Your task to perform on an android device: Look up the best selling patio furniture on Home Depot Image 0: 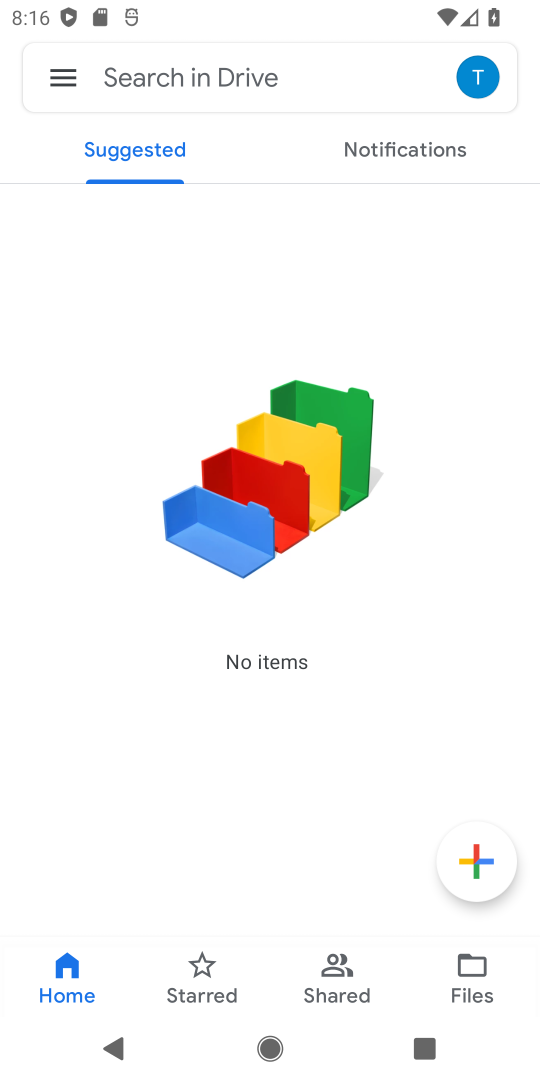
Step 0: press home button
Your task to perform on an android device: Look up the best selling patio furniture on Home Depot Image 1: 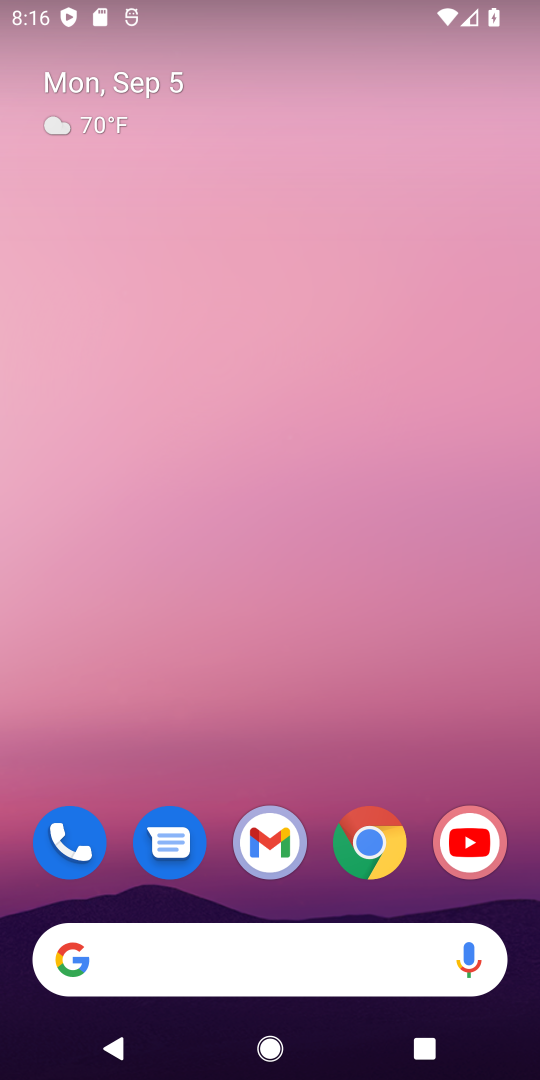
Step 1: click (370, 847)
Your task to perform on an android device: Look up the best selling patio furniture on Home Depot Image 2: 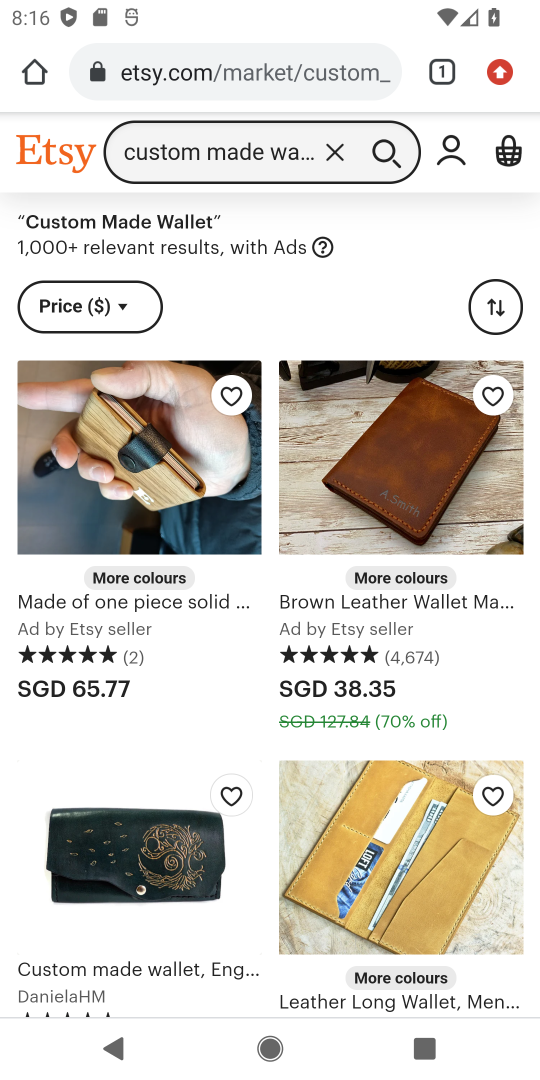
Step 2: click (326, 81)
Your task to perform on an android device: Look up the best selling patio furniture on Home Depot Image 3: 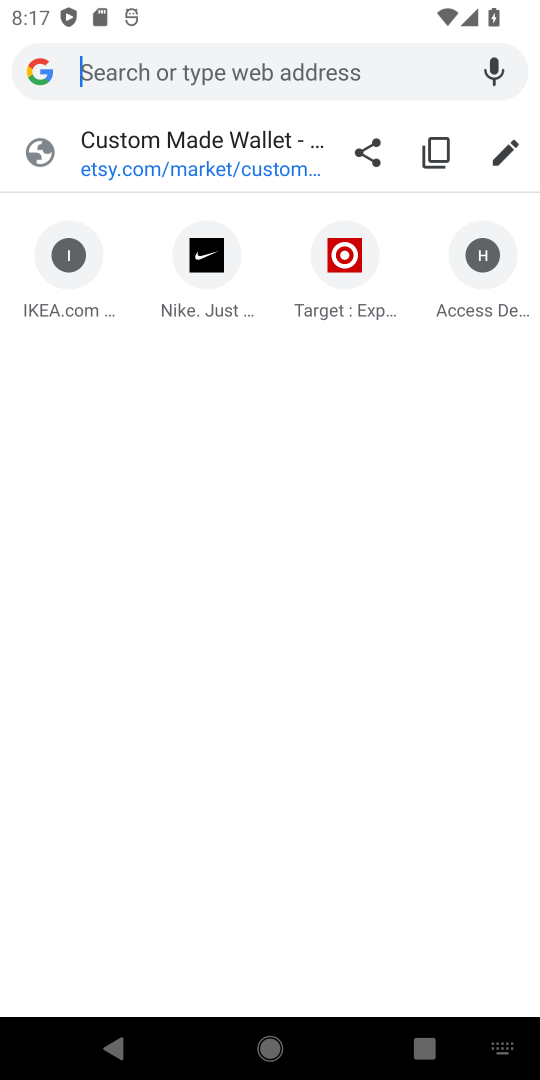
Step 3: type "Home Depot"
Your task to perform on an android device: Look up the best selling patio furniture on Home Depot Image 4: 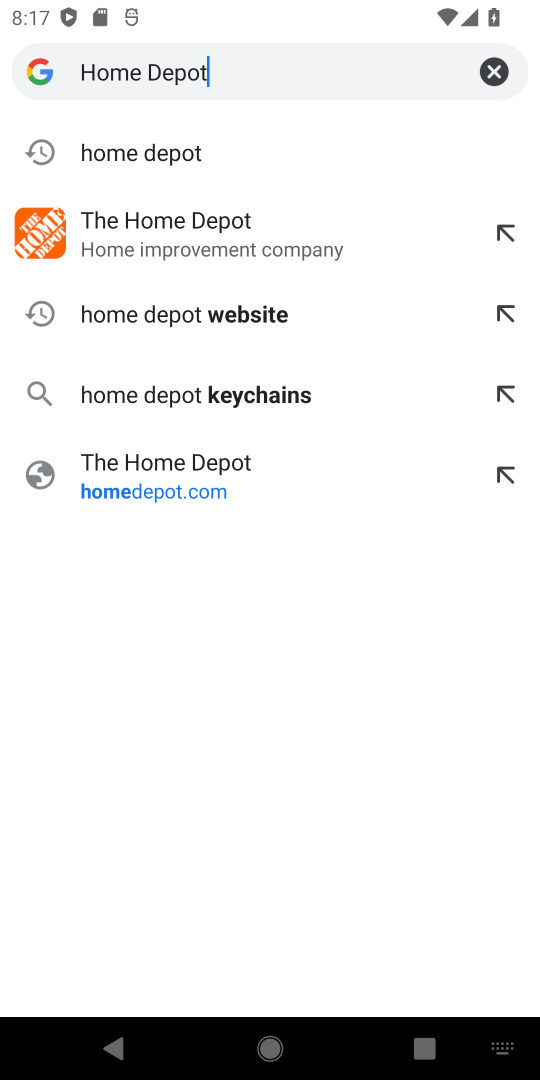
Step 4: click (194, 159)
Your task to perform on an android device: Look up the best selling patio furniture on Home Depot Image 5: 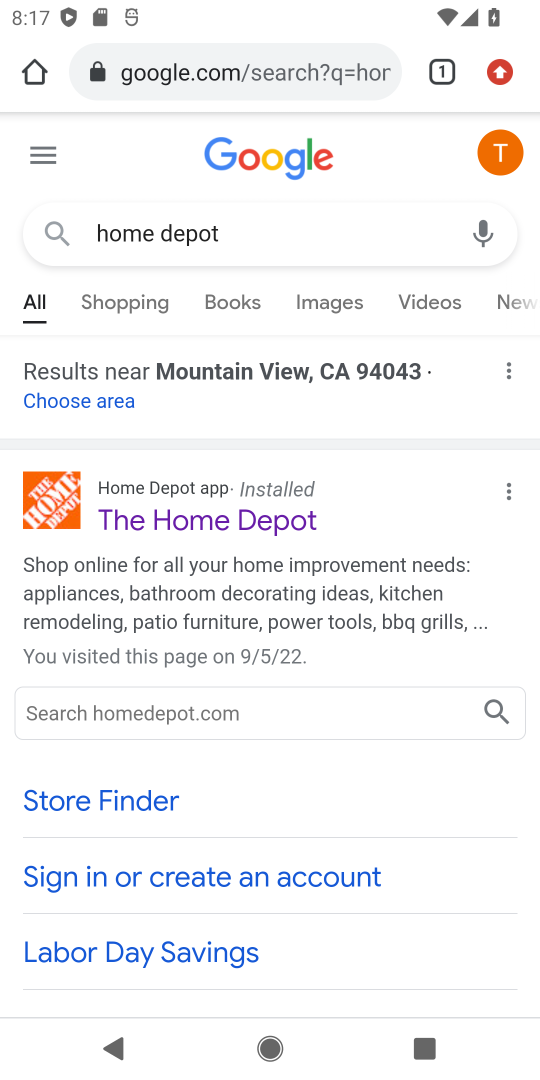
Step 5: drag from (200, 800) to (345, 614)
Your task to perform on an android device: Look up the best selling patio furniture on Home Depot Image 6: 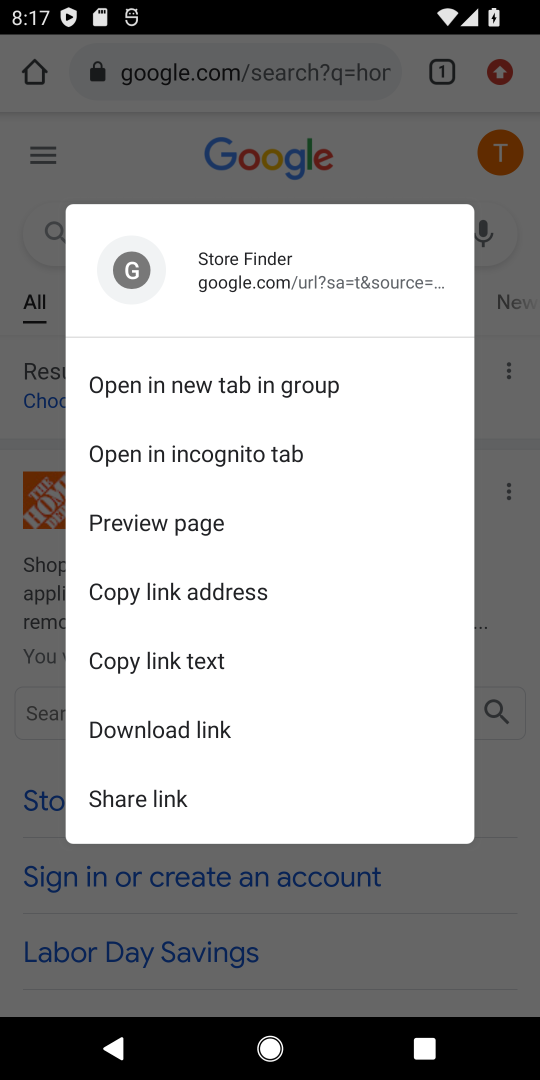
Step 6: click (519, 220)
Your task to perform on an android device: Look up the best selling patio furniture on Home Depot Image 7: 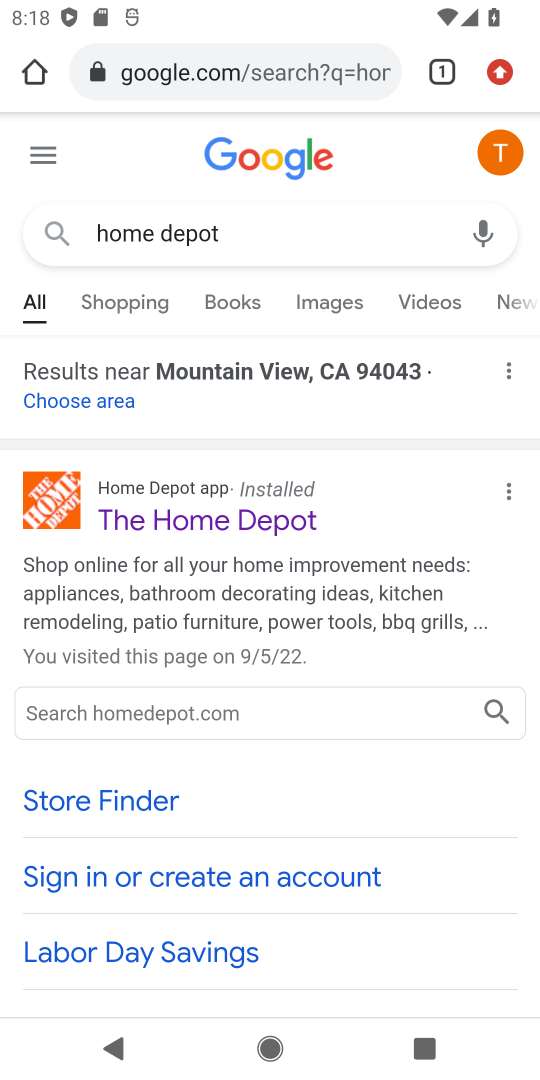
Step 7: drag from (262, 834) to (352, 648)
Your task to perform on an android device: Look up the best selling patio furniture on Home Depot Image 8: 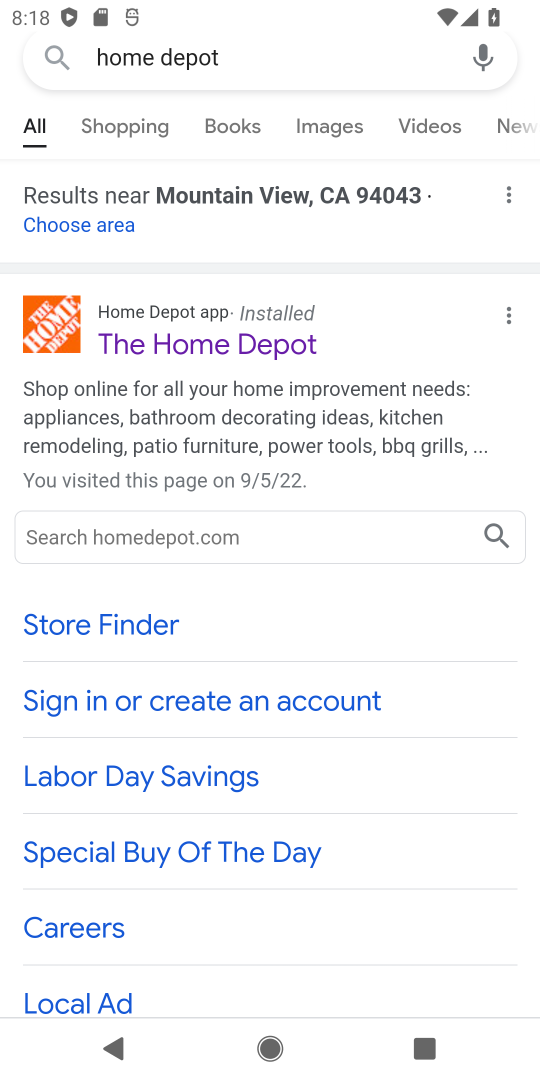
Step 8: drag from (262, 917) to (372, 721)
Your task to perform on an android device: Look up the best selling patio furniture on Home Depot Image 9: 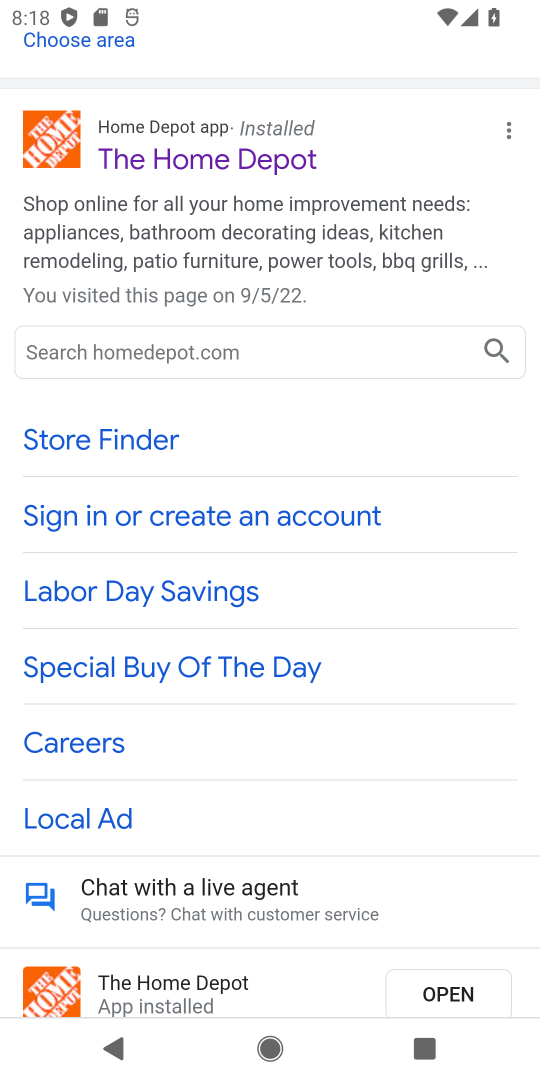
Step 9: drag from (201, 844) to (348, 643)
Your task to perform on an android device: Look up the best selling patio furniture on Home Depot Image 10: 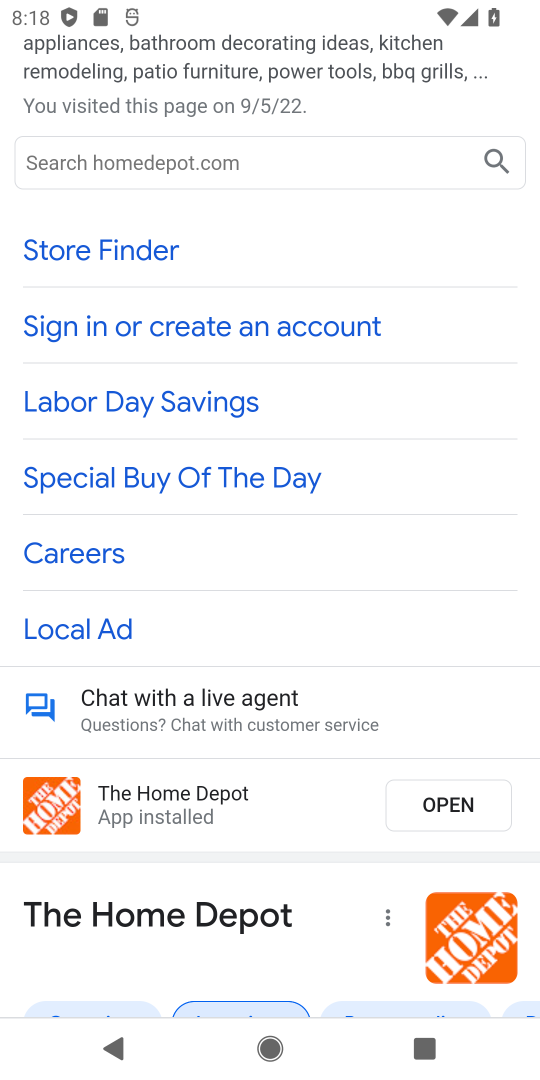
Step 10: drag from (220, 929) to (367, 689)
Your task to perform on an android device: Look up the best selling patio furniture on Home Depot Image 11: 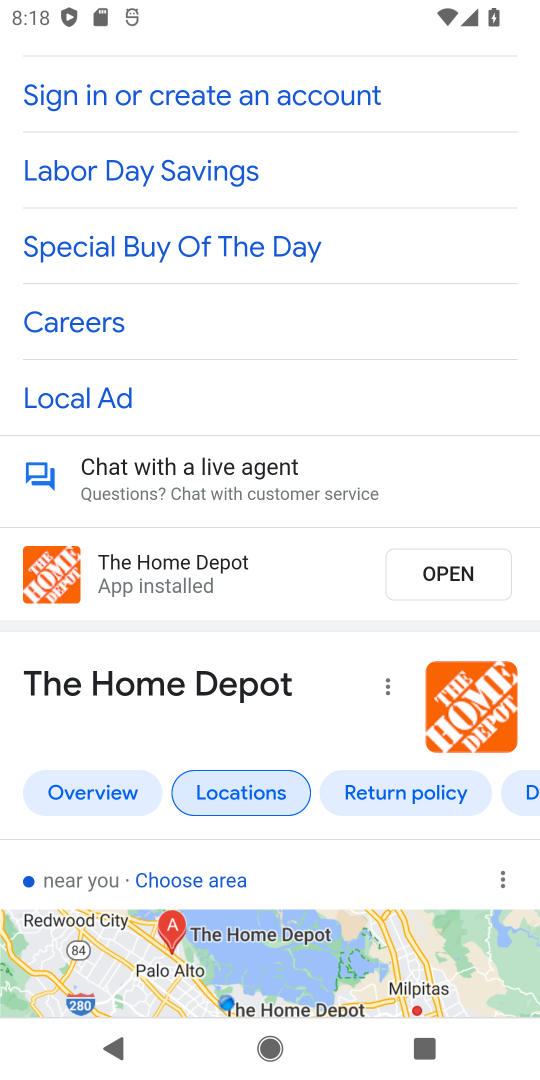
Step 11: drag from (301, 860) to (462, 611)
Your task to perform on an android device: Look up the best selling patio furniture on Home Depot Image 12: 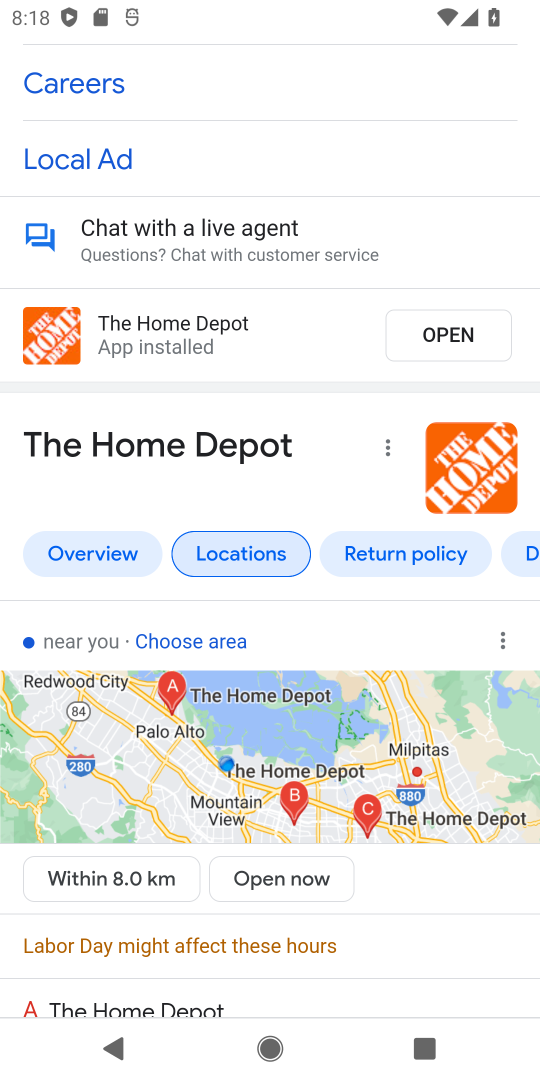
Step 12: drag from (364, 959) to (414, 720)
Your task to perform on an android device: Look up the best selling patio furniture on Home Depot Image 13: 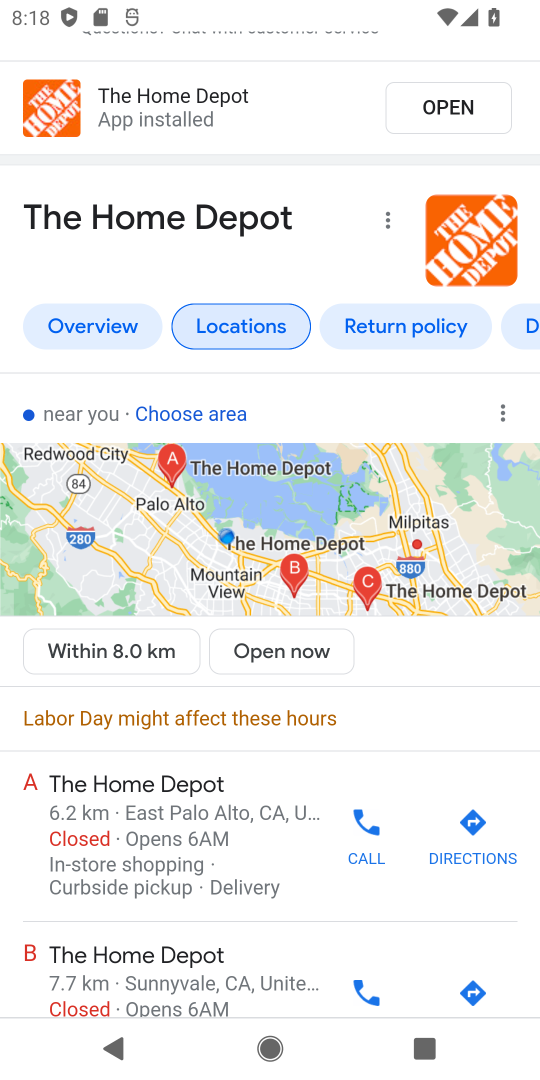
Step 13: drag from (300, 937) to (461, 702)
Your task to perform on an android device: Look up the best selling patio furniture on Home Depot Image 14: 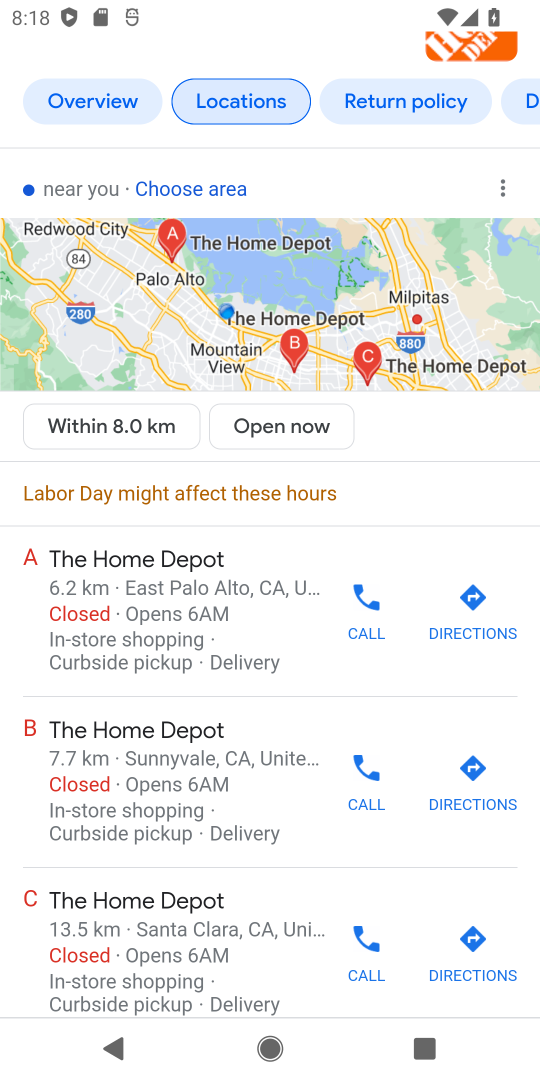
Step 14: drag from (329, 858) to (441, 691)
Your task to perform on an android device: Look up the best selling patio furniture on Home Depot Image 15: 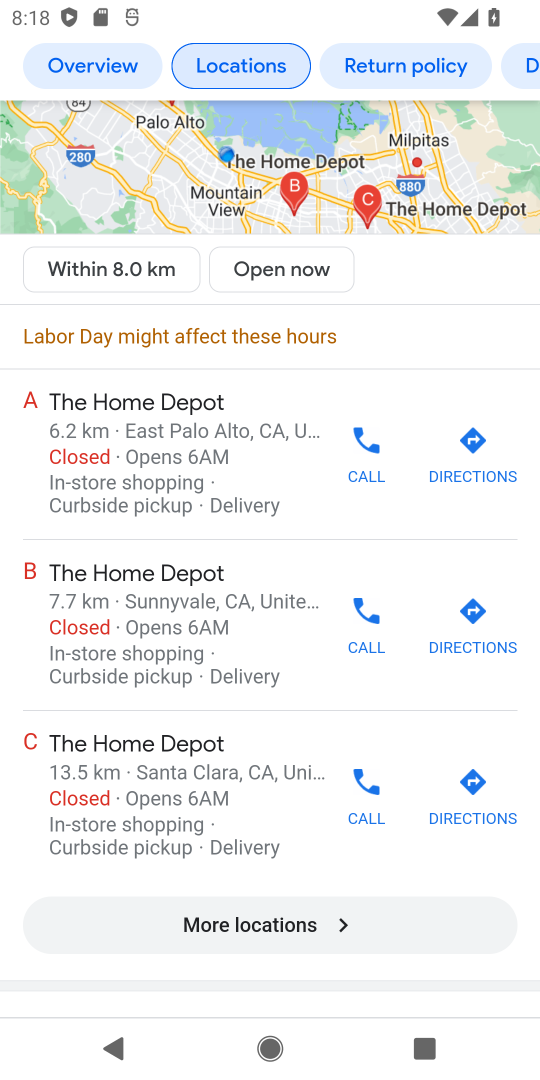
Step 15: drag from (303, 867) to (449, 581)
Your task to perform on an android device: Look up the best selling patio furniture on Home Depot Image 16: 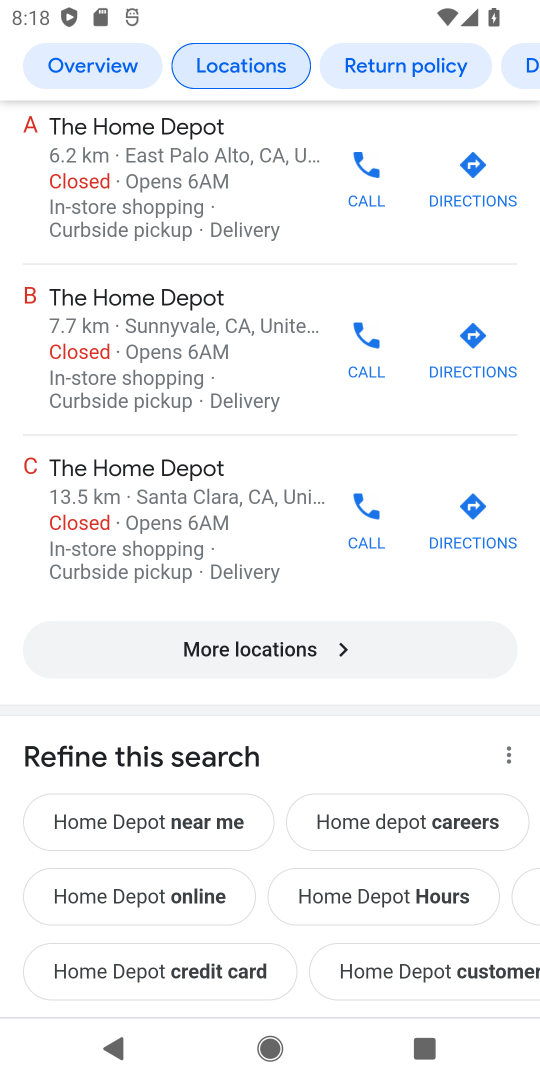
Step 16: drag from (228, 836) to (315, 678)
Your task to perform on an android device: Look up the best selling patio furniture on Home Depot Image 17: 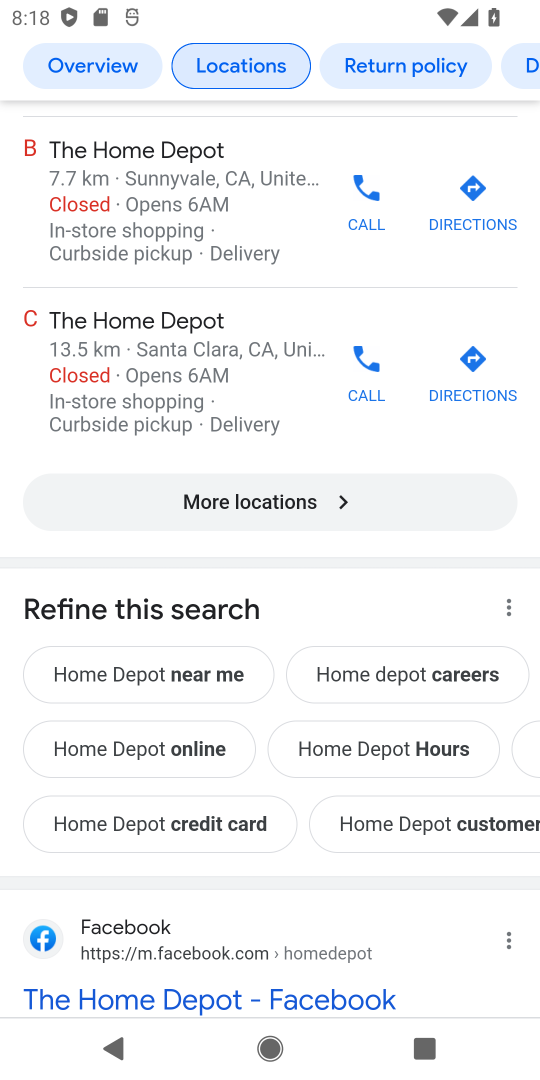
Step 17: drag from (229, 891) to (370, 612)
Your task to perform on an android device: Look up the best selling patio furniture on Home Depot Image 18: 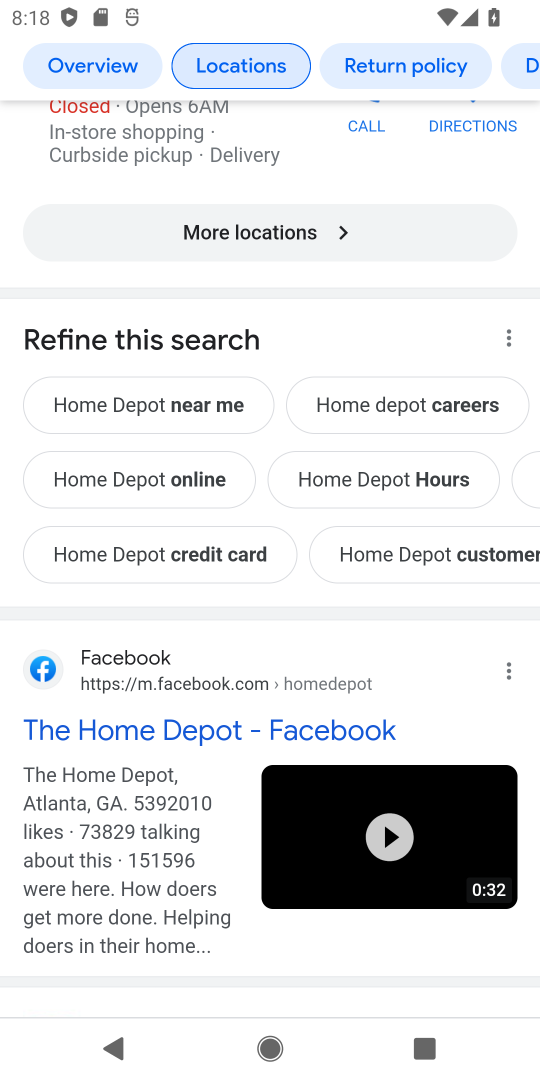
Step 18: drag from (297, 787) to (376, 644)
Your task to perform on an android device: Look up the best selling patio furniture on Home Depot Image 19: 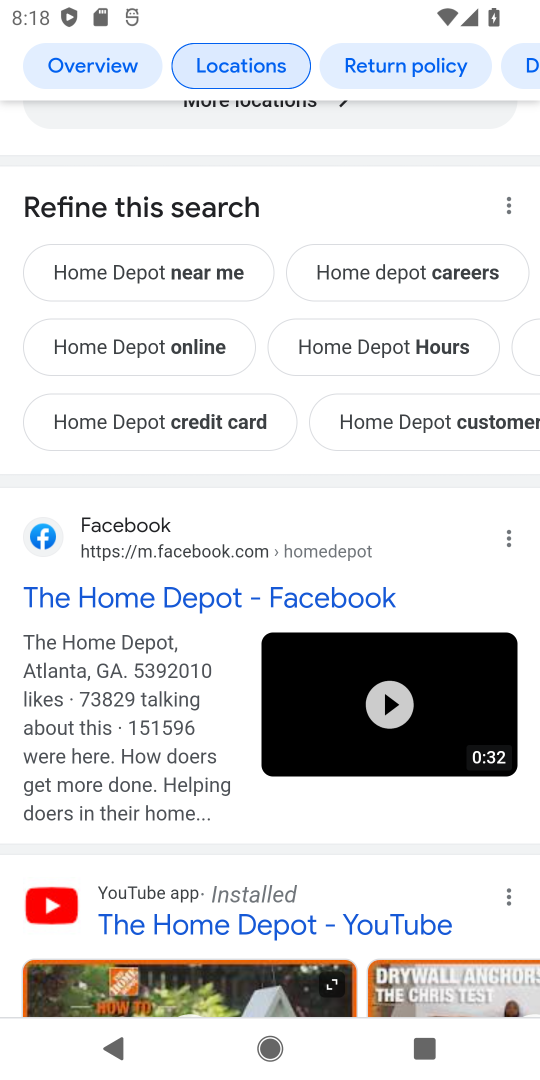
Step 19: drag from (308, 886) to (441, 690)
Your task to perform on an android device: Look up the best selling patio furniture on Home Depot Image 20: 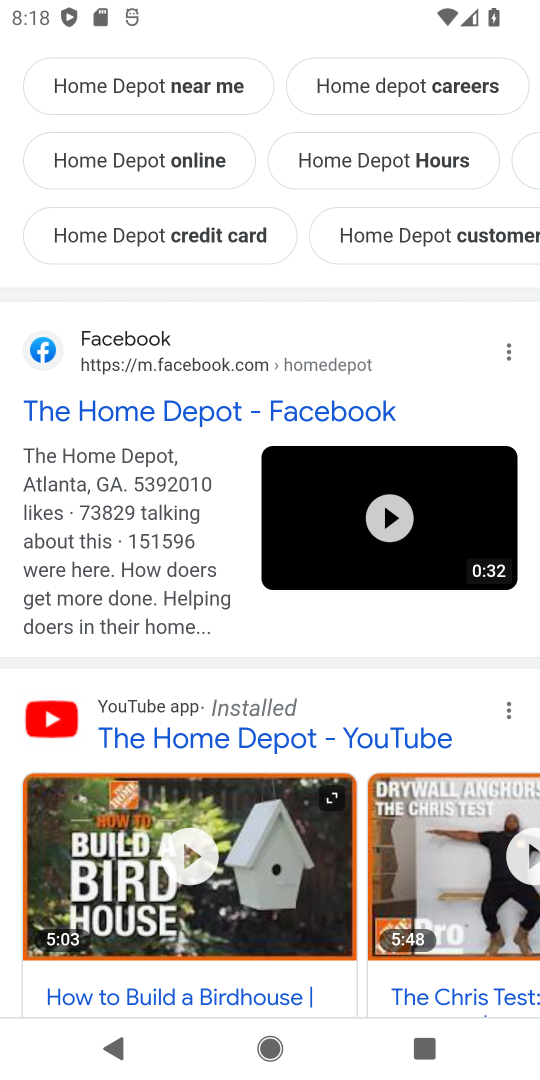
Step 20: drag from (490, 519) to (536, 401)
Your task to perform on an android device: Look up the best selling patio furniture on Home Depot Image 21: 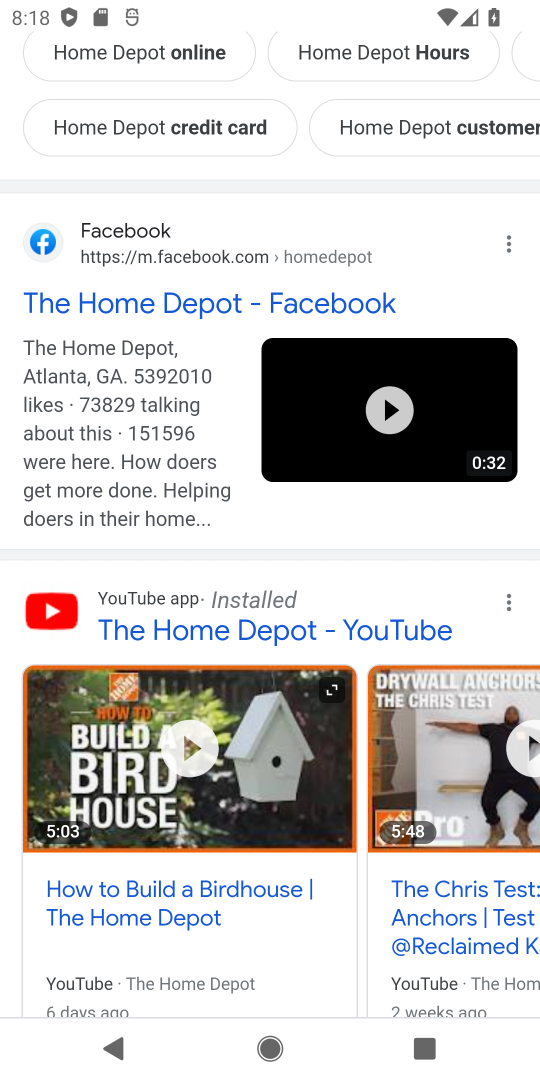
Step 21: drag from (351, 753) to (462, 466)
Your task to perform on an android device: Look up the best selling patio furniture on Home Depot Image 22: 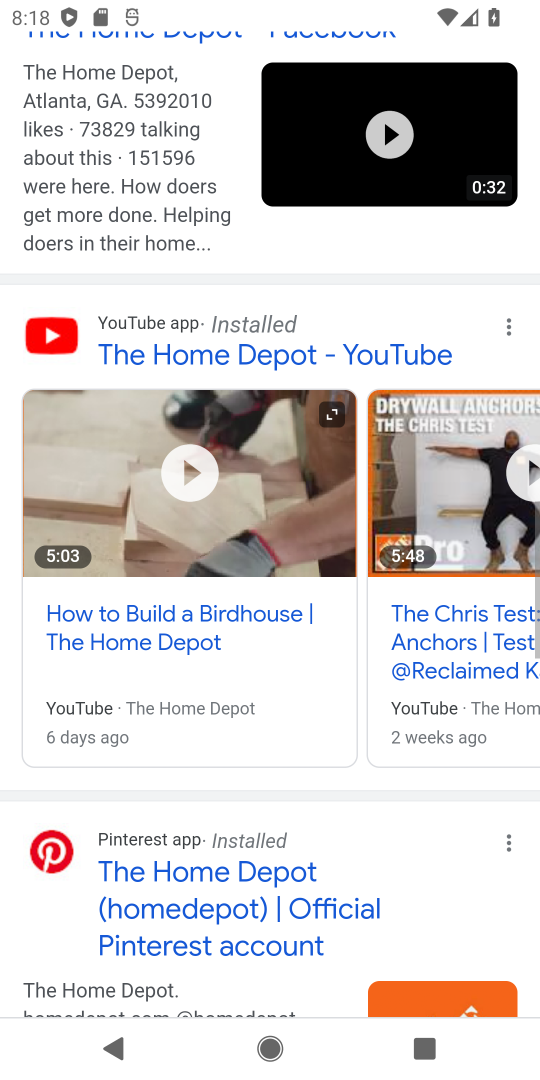
Step 22: drag from (314, 944) to (426, 730)
Your task to perform on an android device: Look up the best selling patio furniture on Home Depot Image 23: 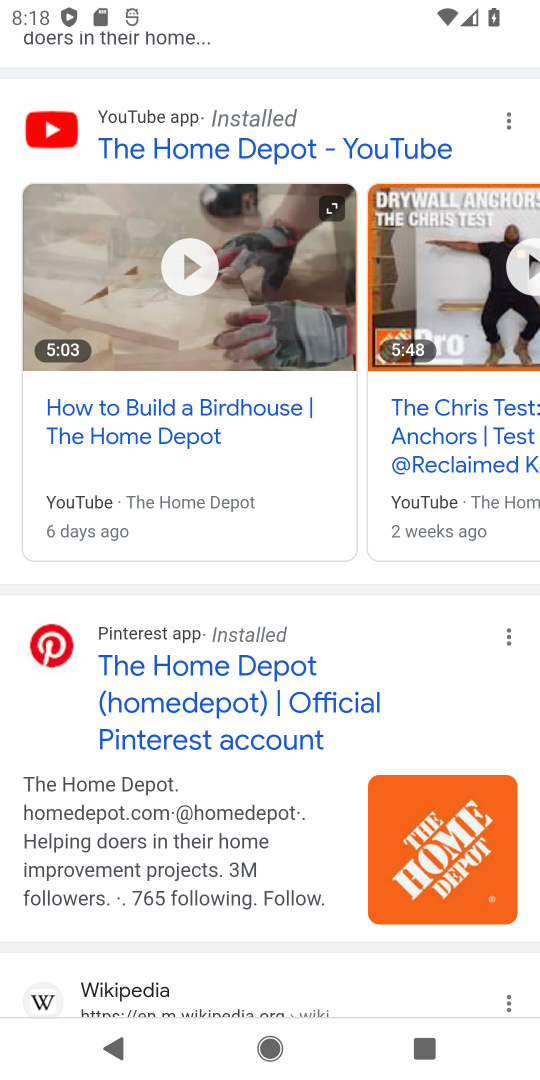
Step 23: click (299, 742)
Your task to perform on an android device: Look up the best selling patio furniture on Home Depot Image 24: 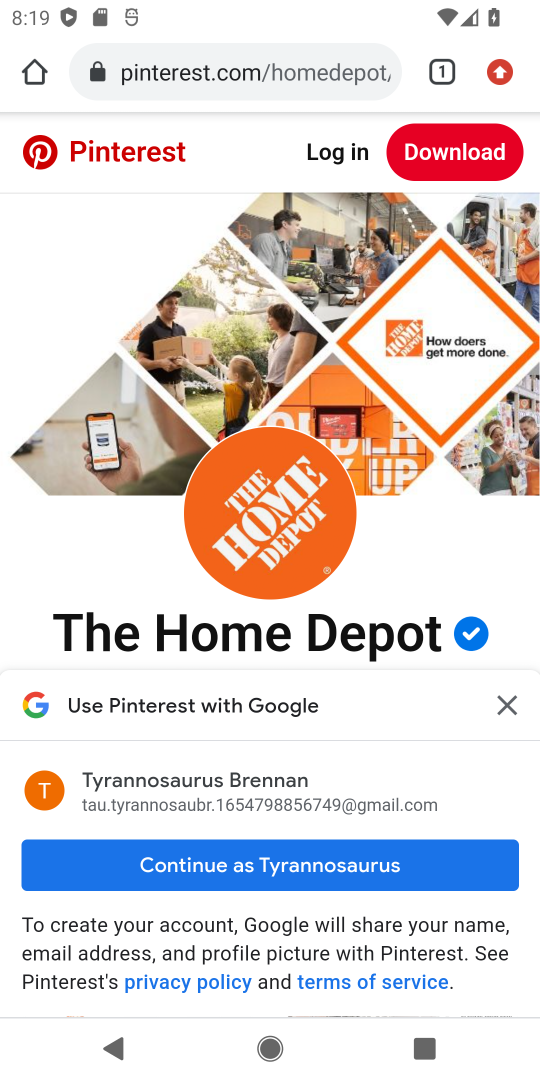
Step 24: task complete